Your task to perform on an android device: toggle wifi Image 0: 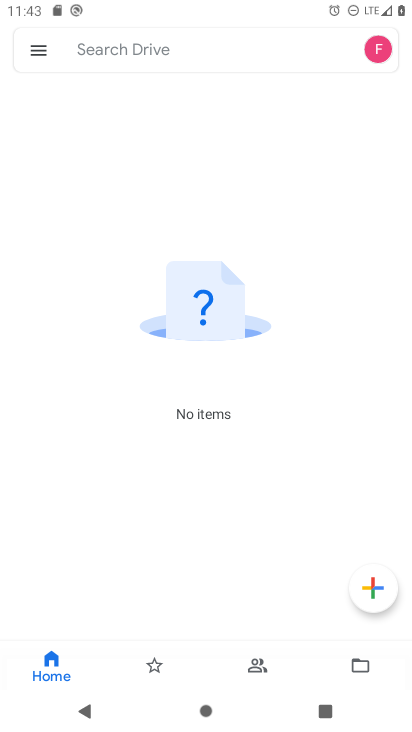
Step 0: press home button
Your task to perform on an android device: toggle wifi Image 1: 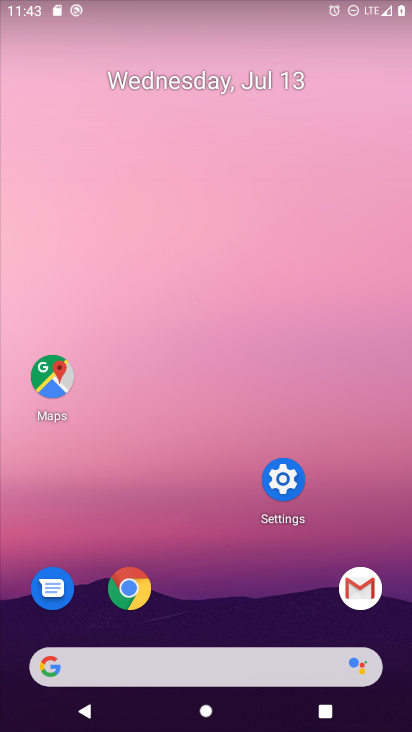
Step 1: click (283, 465)
Your task to perform on an android device: toggle wifi Image 2: 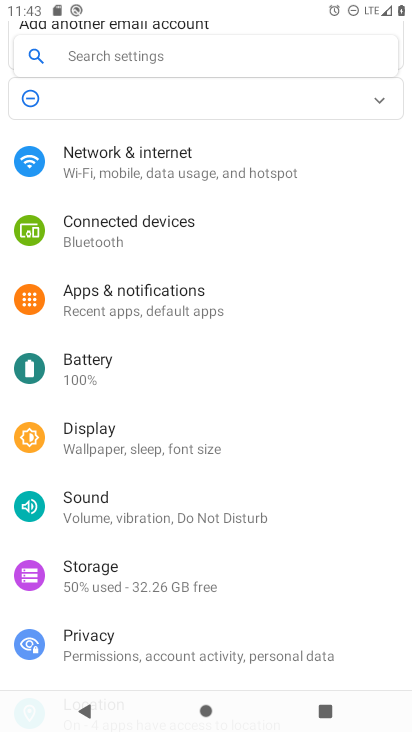
Step 2: click (180, 173)
Your task to perform on an android device: toggle wifi Image 3: 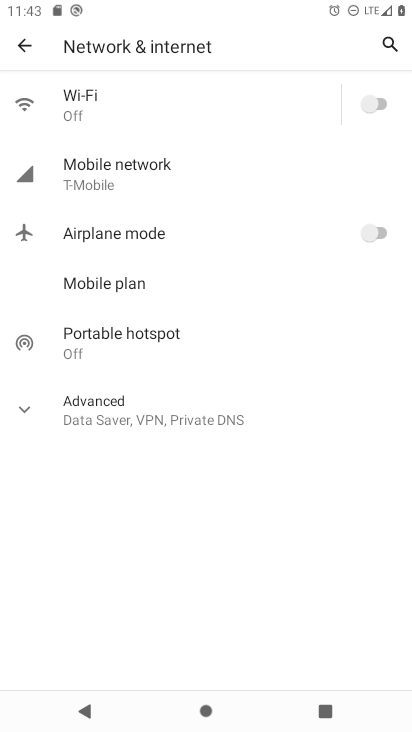
Step 3: click (134, 111)
Your task to perform on an android device: toggle wifi Image 4: 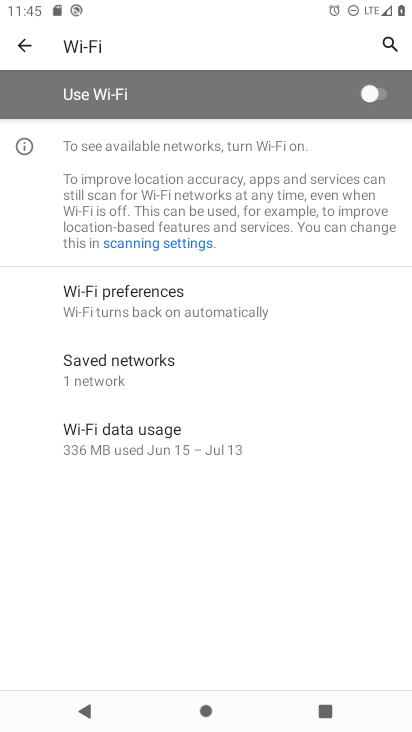
Step 4: task complete